Your task to perform on an android device: Go to Android settings Image 0: 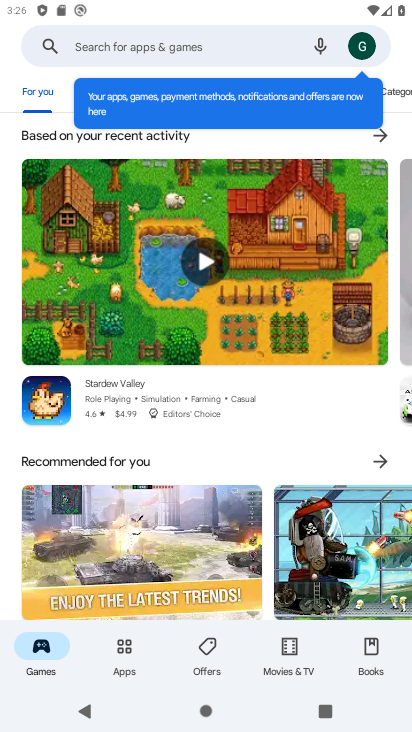
Step 0: press home button
Your task to perform on an android device: Go to Android settings Image 1: 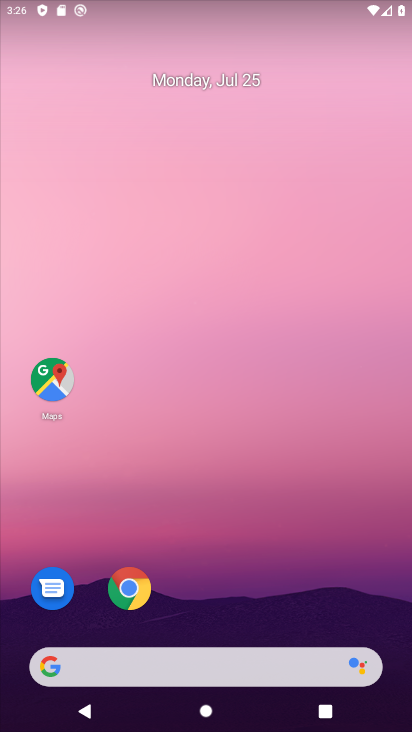
Step 1: drag from (298, 634) to (207, 181)
Your task to perform on an android device: Go to Android settings Image 2: 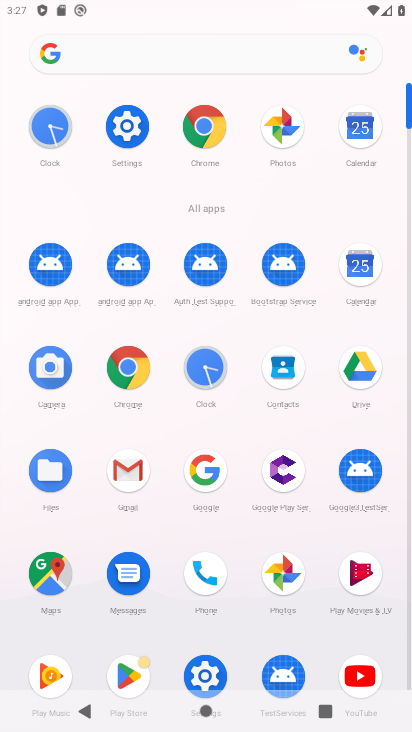
Step 2: click (198, 665)
Your task to perform on an android device: Go to Android settings Image 3: 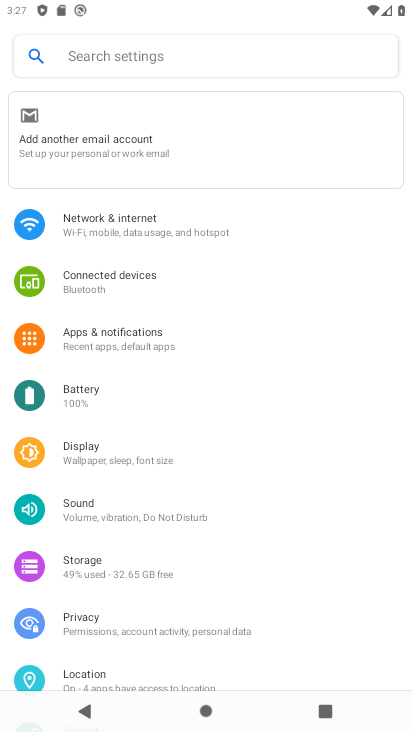
Step 3: task complete